Your task to perform on an android device: Go to Amazon Image 0: 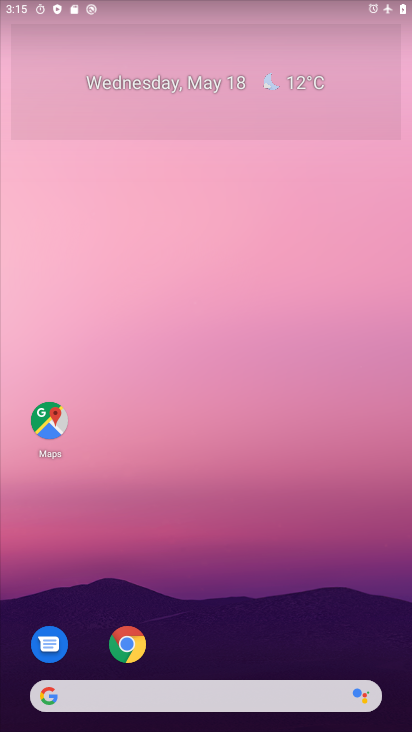
Step 0: click (128, 647)
Your task to perform on an android device: Go to Amazon Image 1: 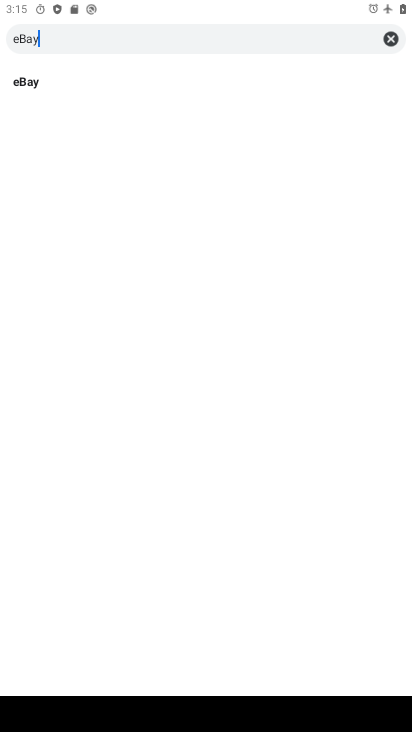
Step 1: click (391, 37)
Your task to perform on an android device: Go to Amazon Image 2: 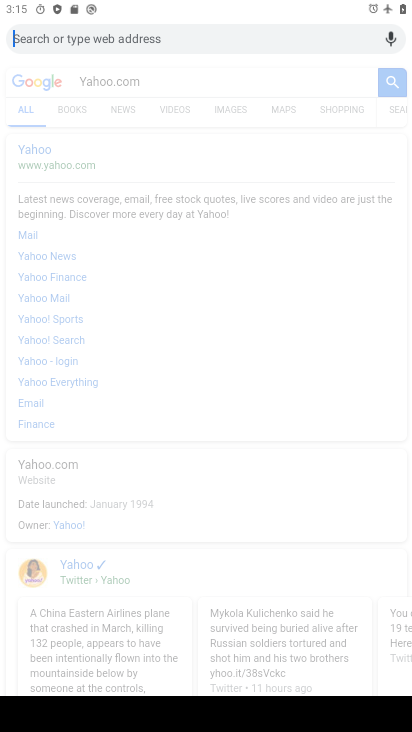
Step 2: type " Amazon"
Your task to perform on an android device: Go to Amazon Image 3: 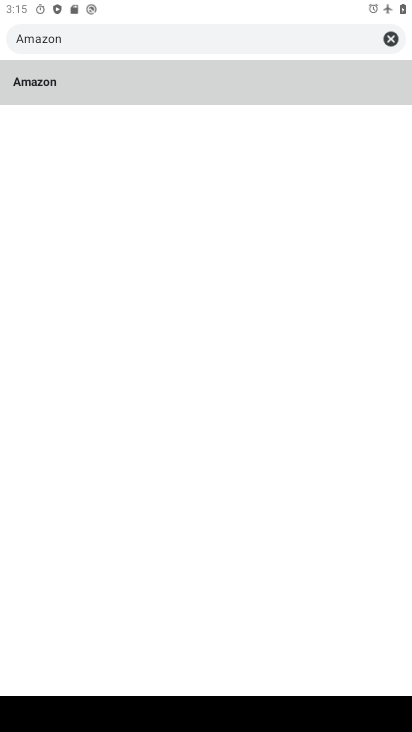
Step 3: click (49, 80)
Your task to perform on an android device: Go to Amazon Image 4: 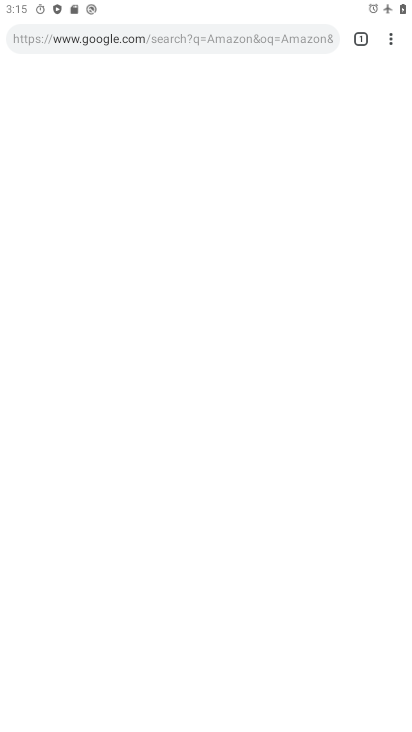
Step 4: task complete